Your task to perform on an android device: Play the last video I watched on Youtube Image 0: 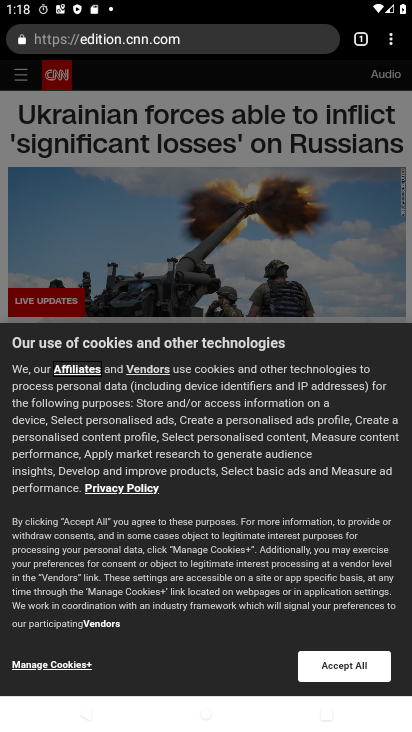
Step 0: press home button
Your task to perform on an android device: Play the last video I watched on Youtube Image 1: 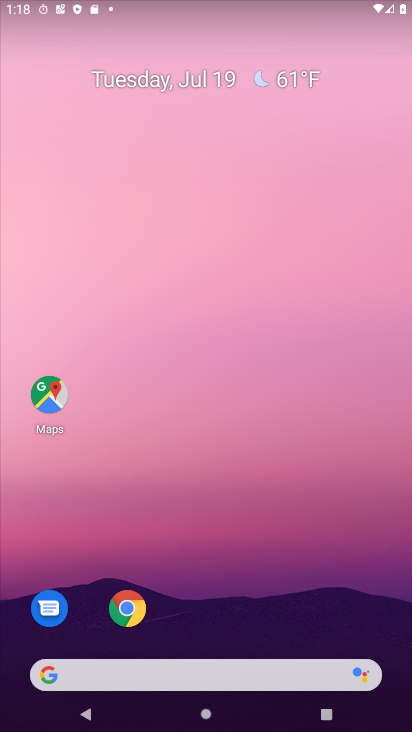
Step 1: drag from (260, 594) to (137, 0)
Your task to perform on an android device: Play the last video I watched on Youtube Image 2: 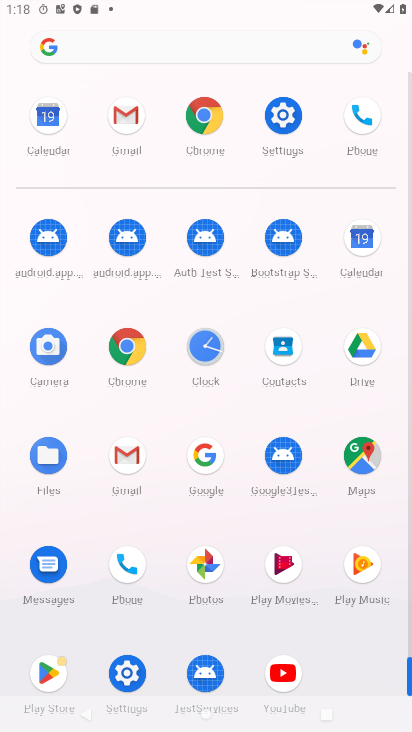
Step 2: click (266, 674)
Your task to perform on an android device: Play the last video I watched on Youtube Image 3: 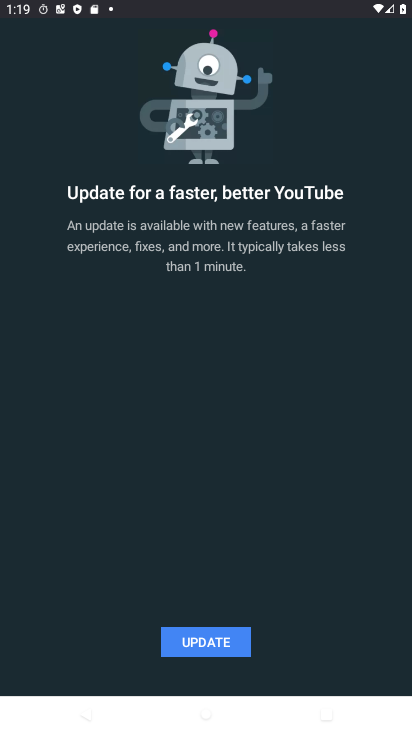
Step 3: click (194, 653)
Your task to perform on an android device: Play the last video I watched on Youtube Image 4: 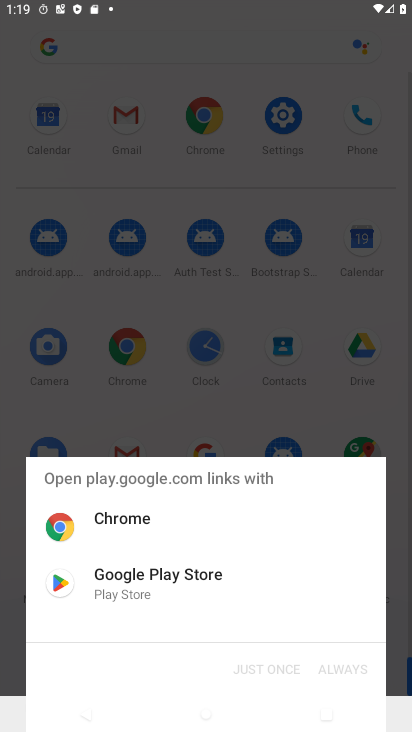
Step 4: click (147, 590)
Your task to perform on an android device: Play the last video I watched on Youtube Image 5: 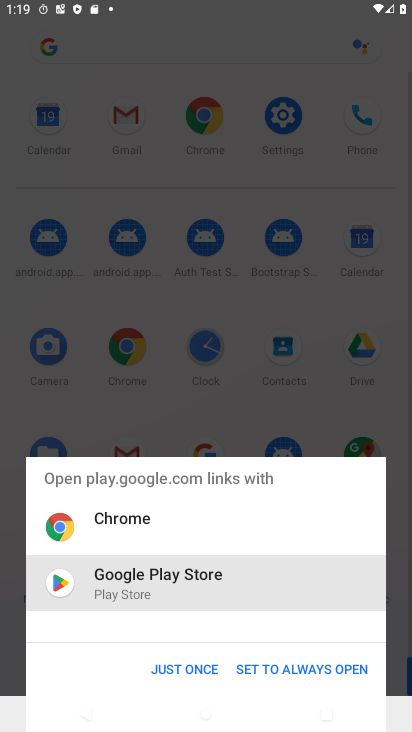
Step 5: click (201, 664)
Your task to perform on an android device: Play the last video I watched on Youtube Image 6: 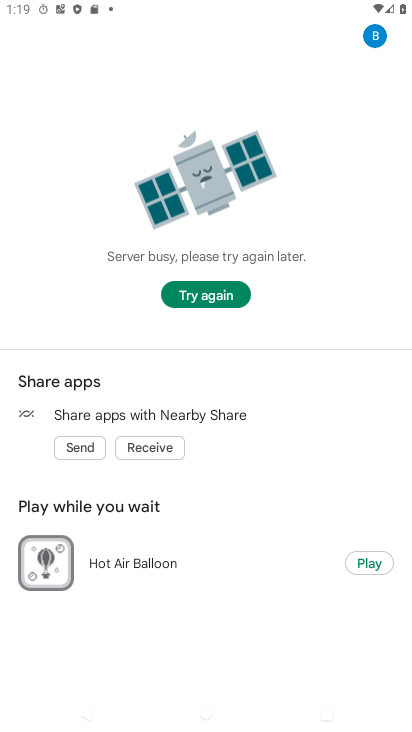
Step 6: click (193, 292)
Your task to perform on an android device: Play the last video I watched on Youtube Image 7: 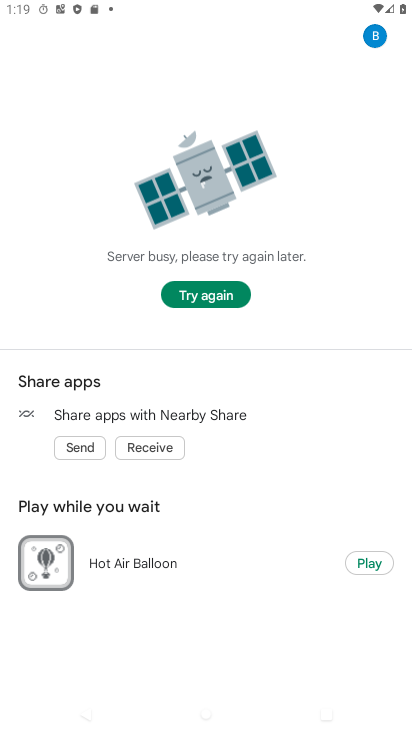
Step 7: click (193, 292)
Your task to perform on an android device: Play the last video I watched on Youtube Image 8: 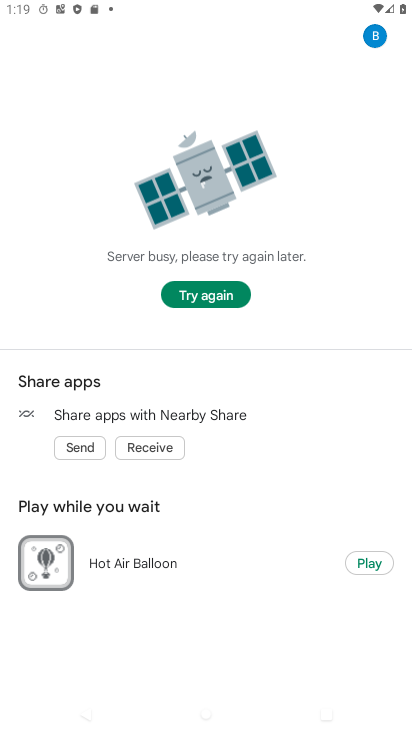
Step 8: task complete